Your task to perform on an android device: uninstall "Calculator" Image 0: 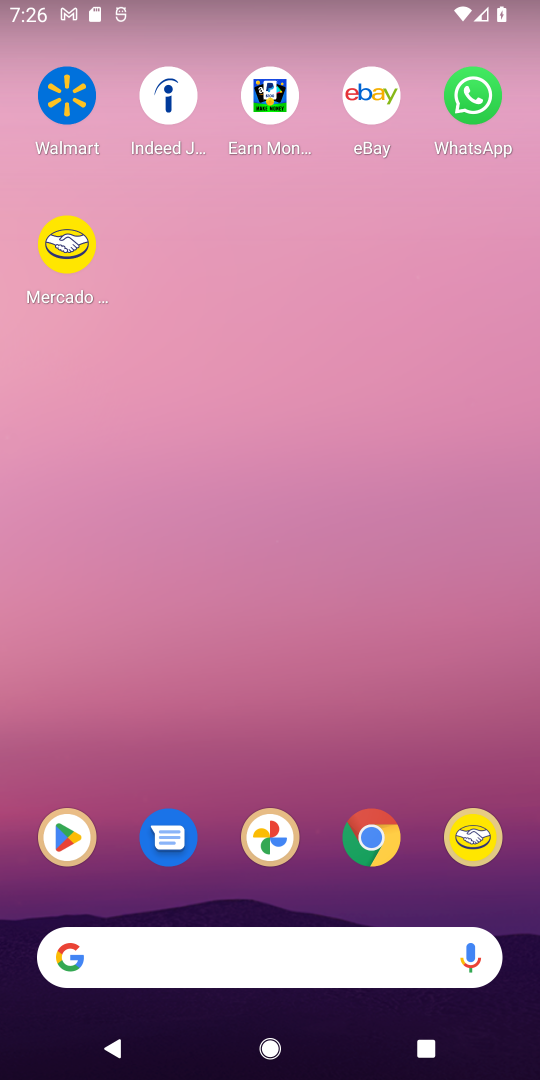
Step 0: click (70, 830)
Your task to perform on an android device: uninstall "Calculator" Image 1: 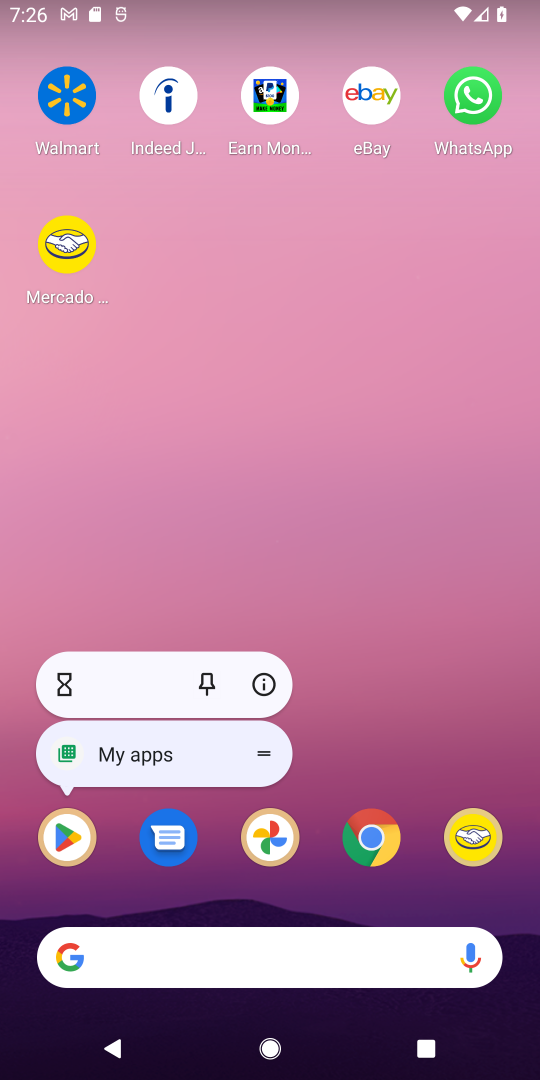
Step 1: click (273, 687)
Your task to perform on an android device: uninstall "Calculator" Image 2: 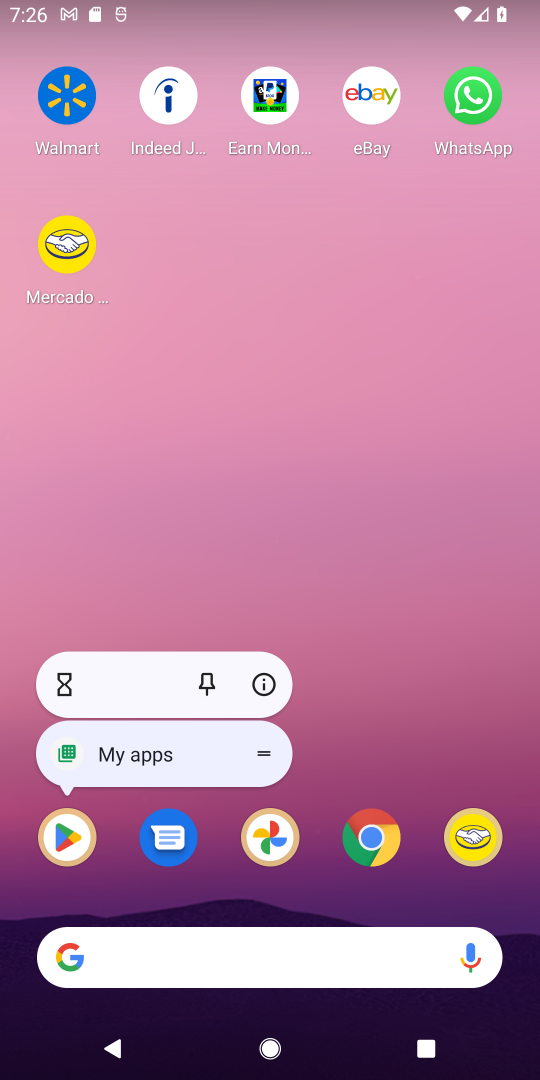
Step 2: click (264, 670)
Your task to perform on an android device: uninstall "Calculator" Image 3: 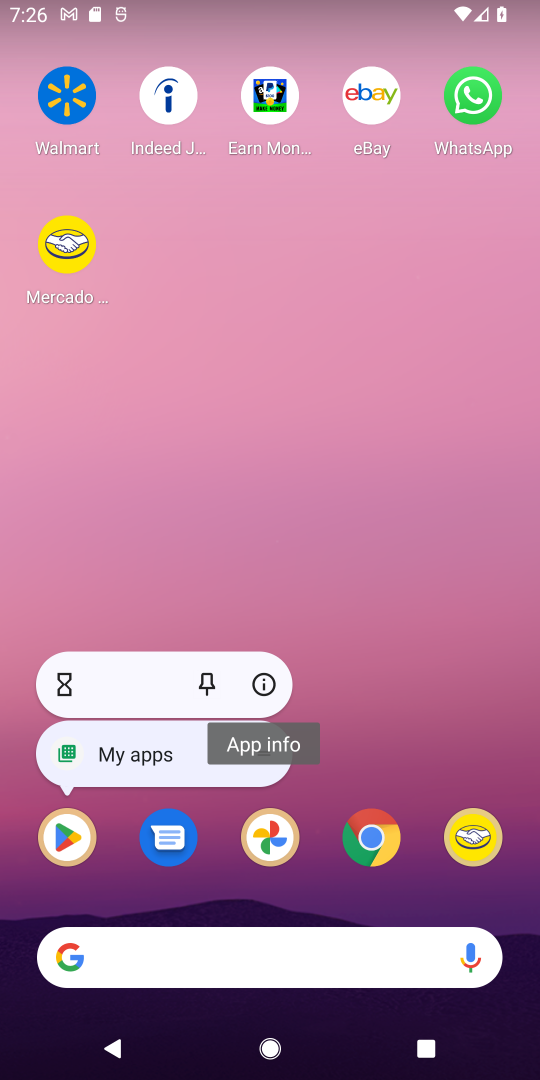
Step 3: click (272, 673)
Your task to perform on an android device: uninstall "Calculator" Image 4: 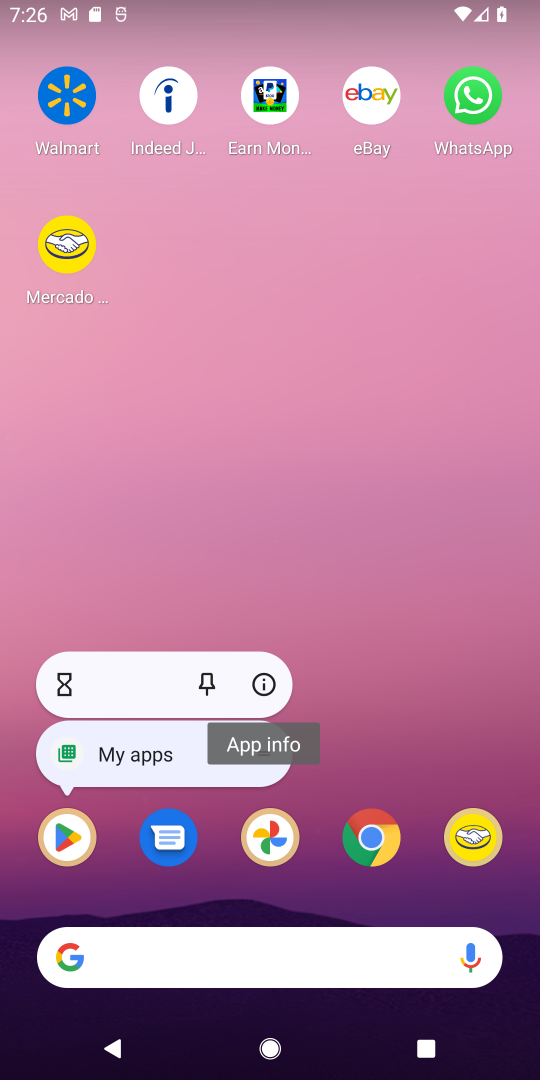
Step 4: click (270, 674)
Your task to perform on an android device: uninstall "Calculator" Image 5: 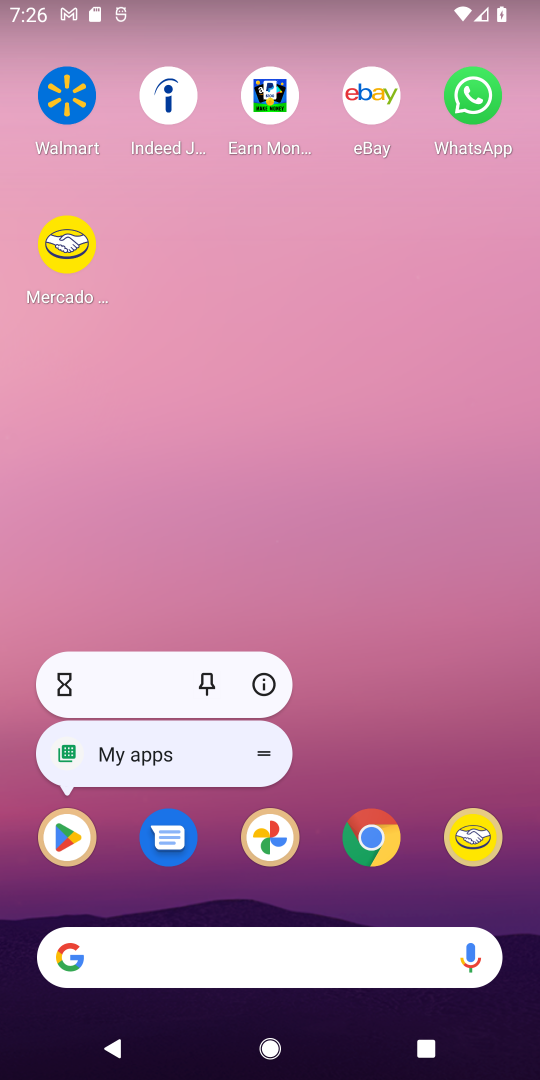
Step 5: click (268, 694)
Your task to perform on an android device: uninstall "Calculator" Image 6: 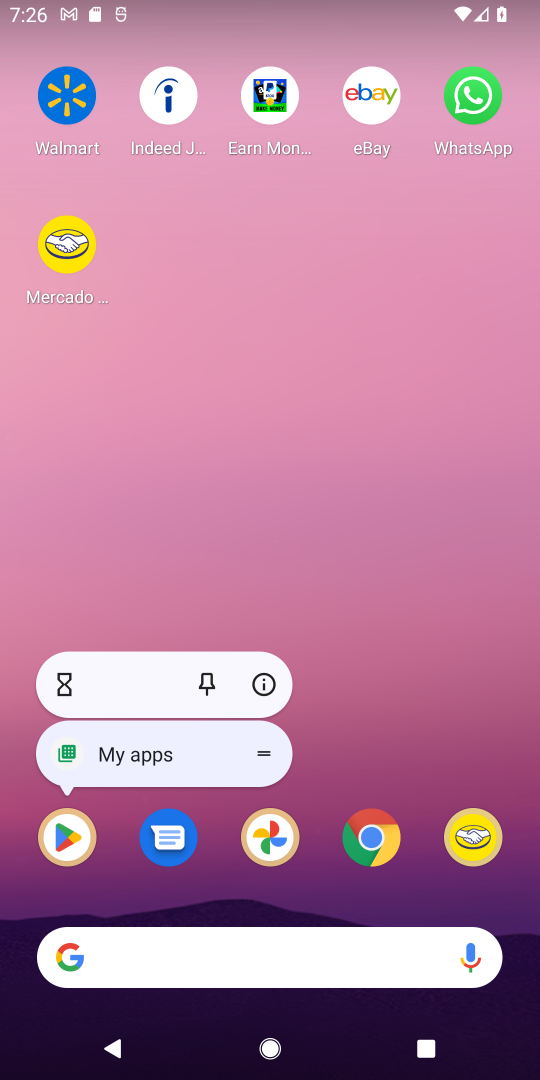
Step 6: click (262, 675)
Your task to perform on an android device: uninstall "Calculator" Image 7: 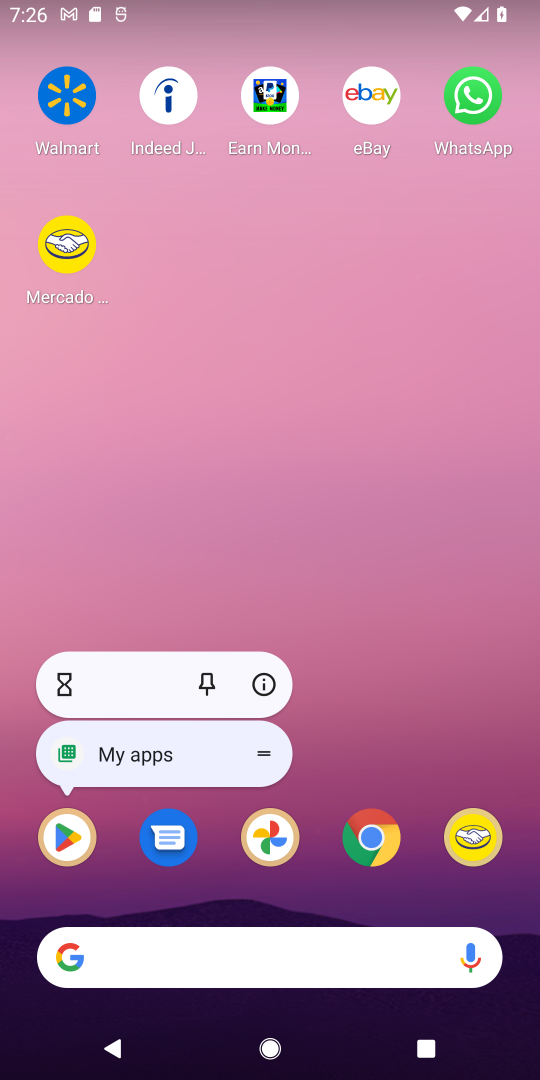
Step 7: click (249, 675)
Your task to perform on an android device: uninstall "Calculator" Image 8: 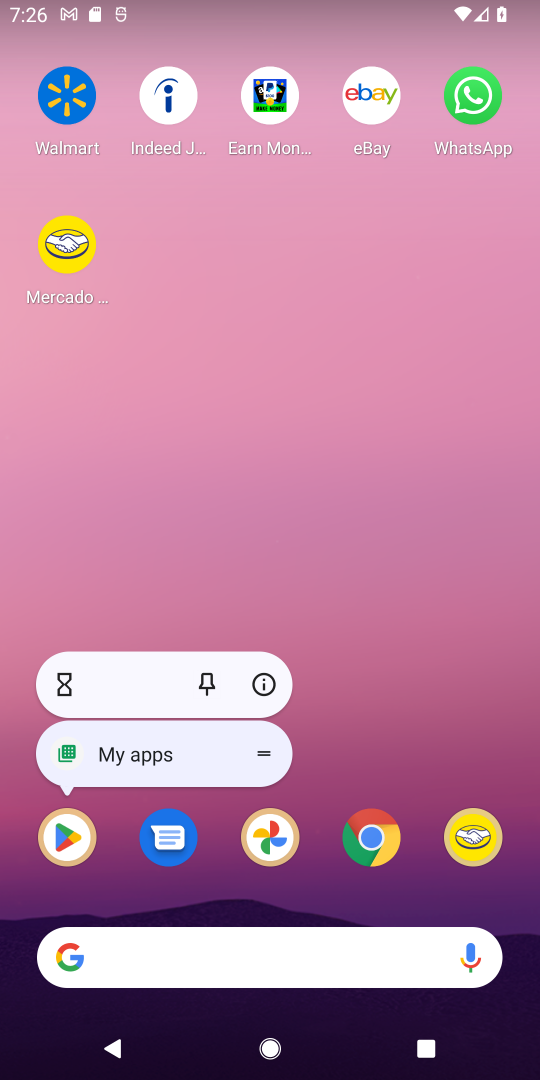
Step 8: click (267, 694)
Your task to perform on an android device: uninstall "Calculator" Image 9: 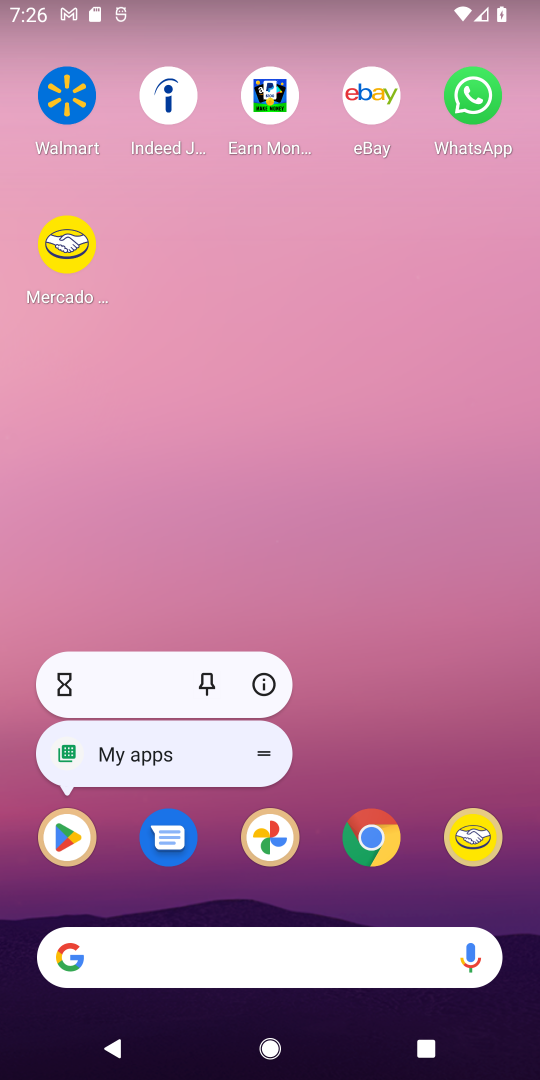
Step 9: click (277, 679)
Your task to perform on an android device: uninstall "Calculator" Image 10: 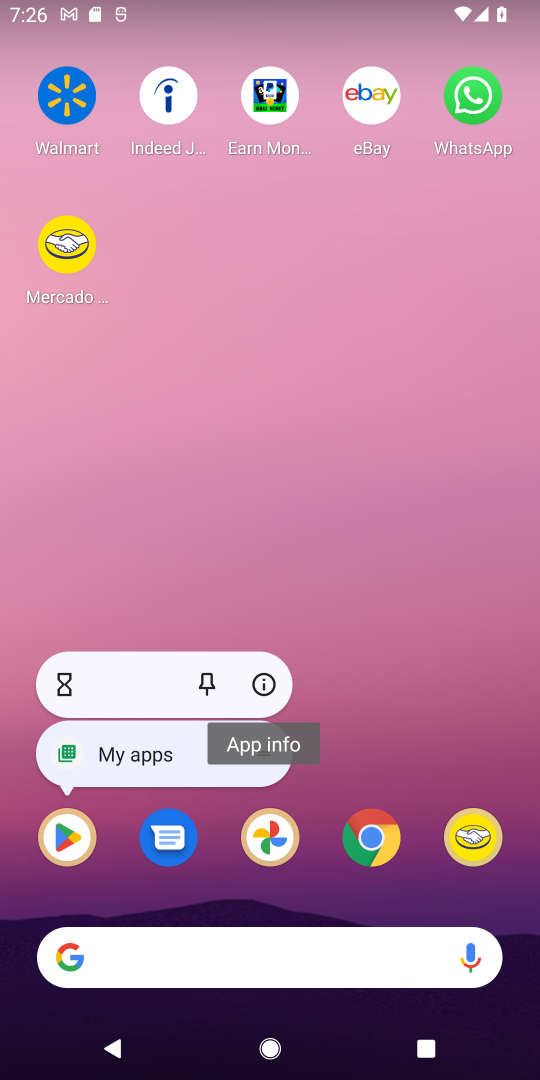
Step 10: click (272, 680)
Your task to perform on an android device: uninstall "Calculator" Image 11: 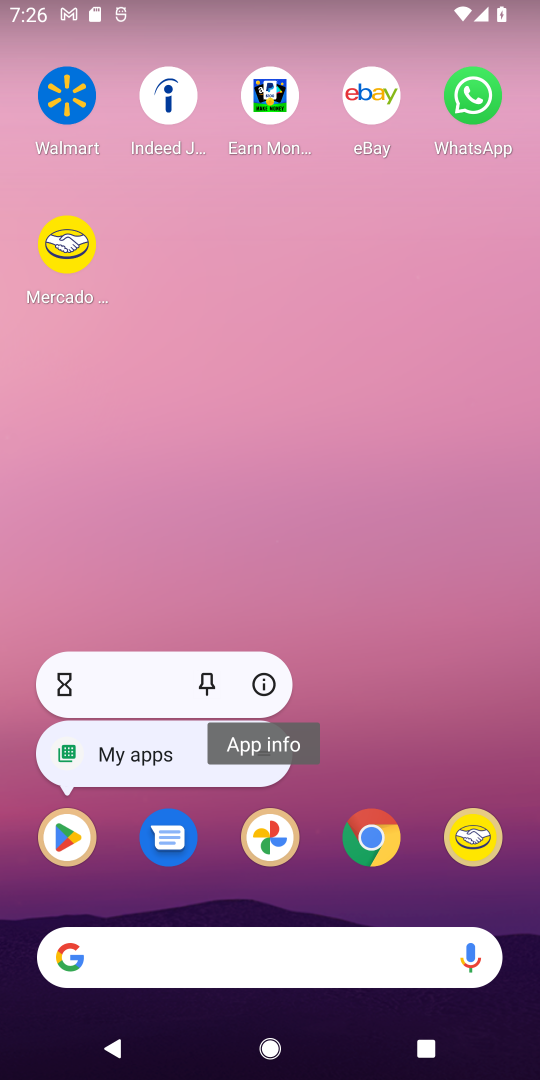
Step 11: click (274, 684)
Your task to perform on an android device: uninstall "Calculator" Image 12: 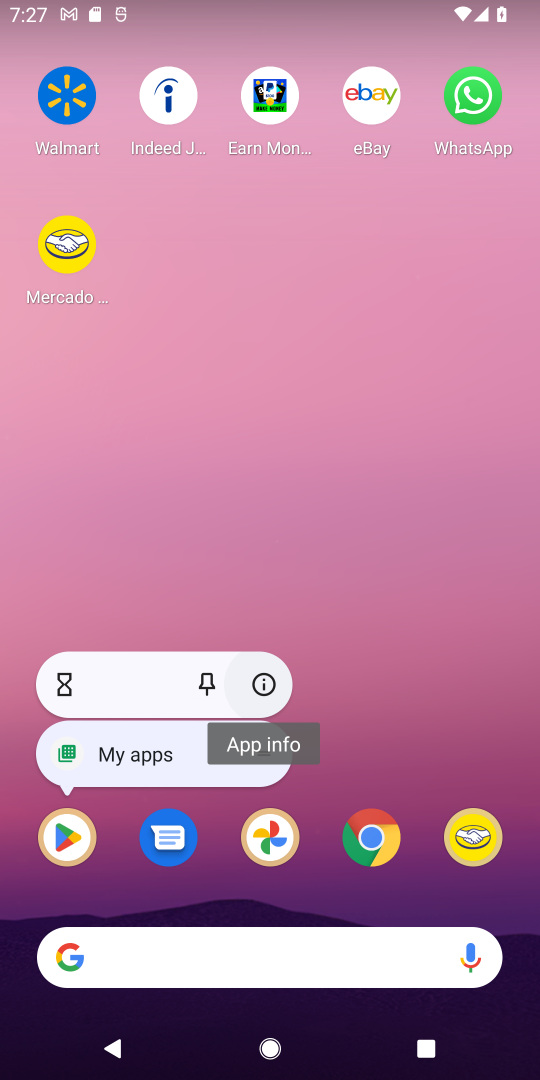
Step 12: click (277, 687)
Your task to perform on an android device: uninstall "Calculator" Image 13: 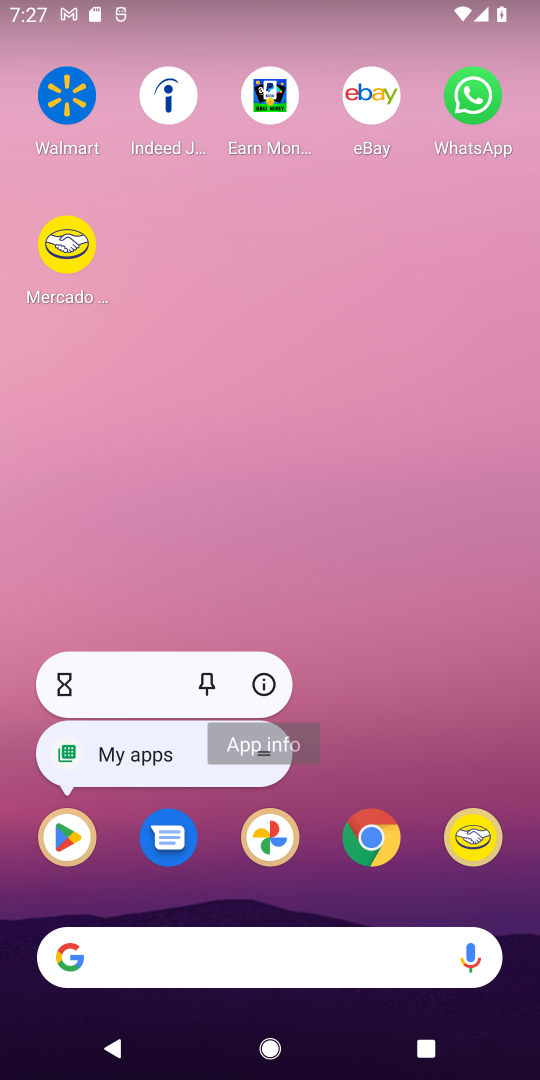
Step 13: click (277, 687)
Your task to perform on an android device: uninstall "Calculator" Image 14: 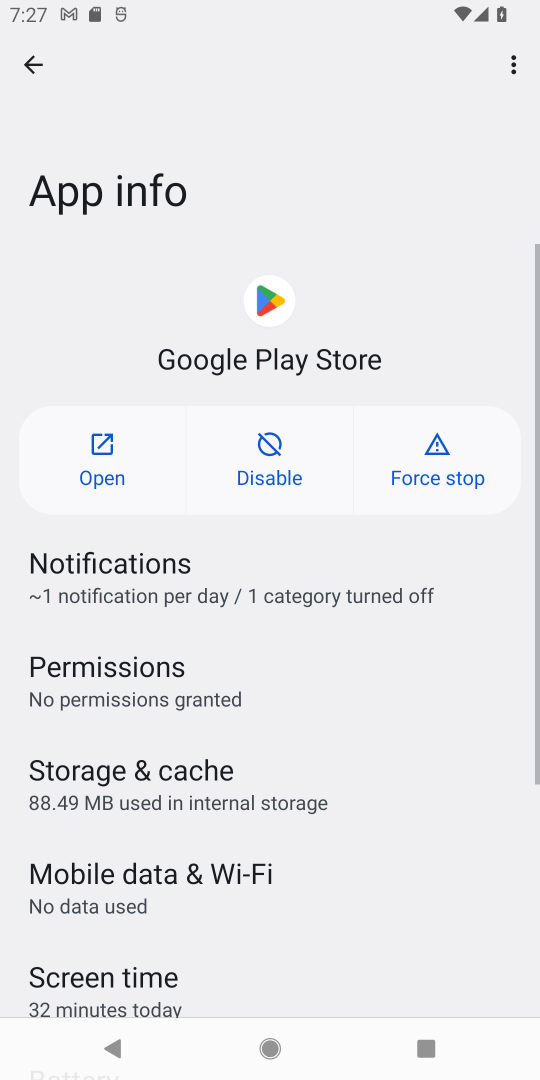
Step 14: click (119, 467)
Your task to perform on an android device: uninstall "Calculator" Image 15: 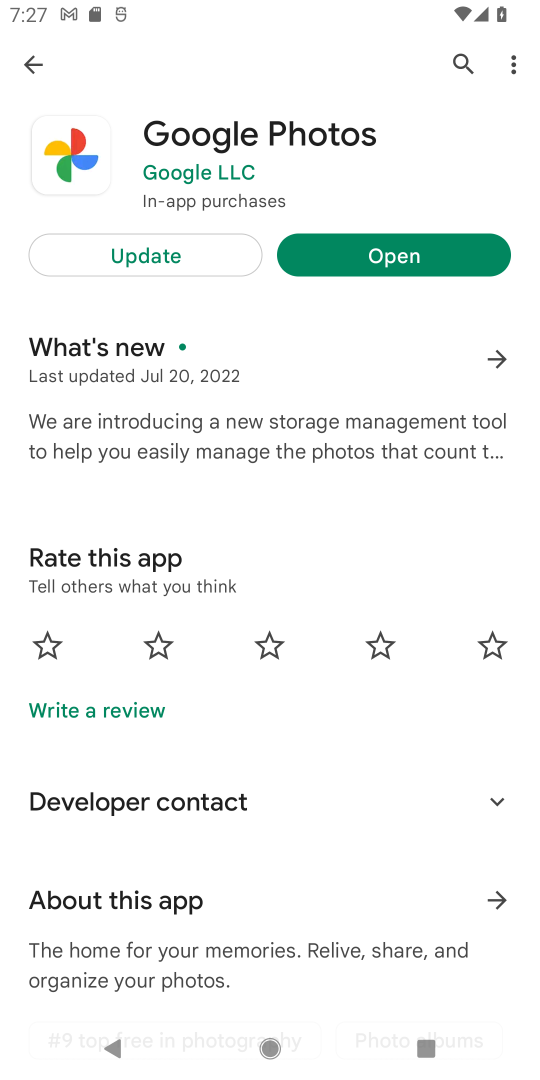
Step 15: click (30, 63)
Your task to perform on an android device: uninstall "Calculator" Image 16: 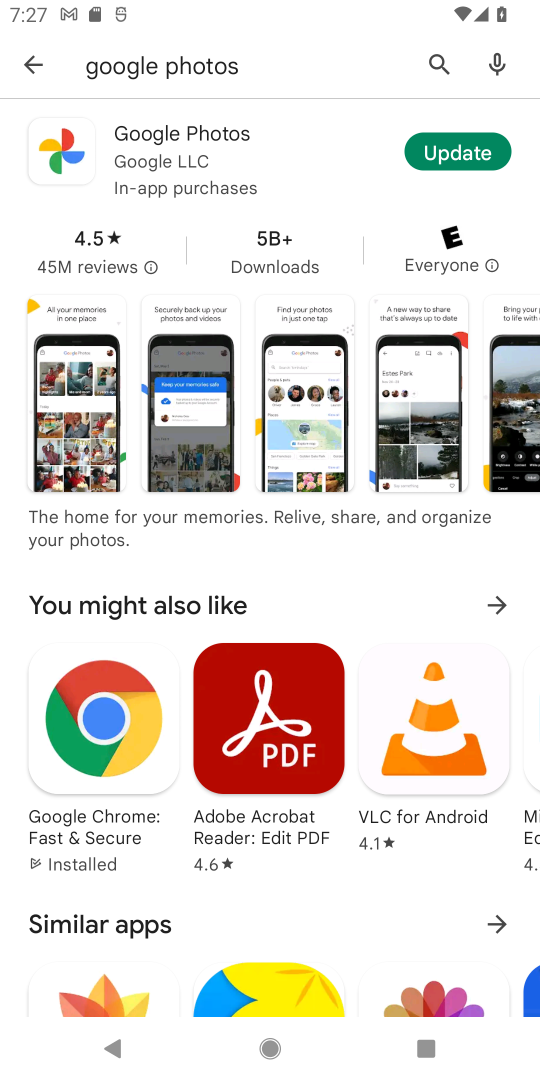
Step 16: drag from (274, 303) to (435, 1076)
Your task to perform on an android device: uninstall "Calculator" Image 17: 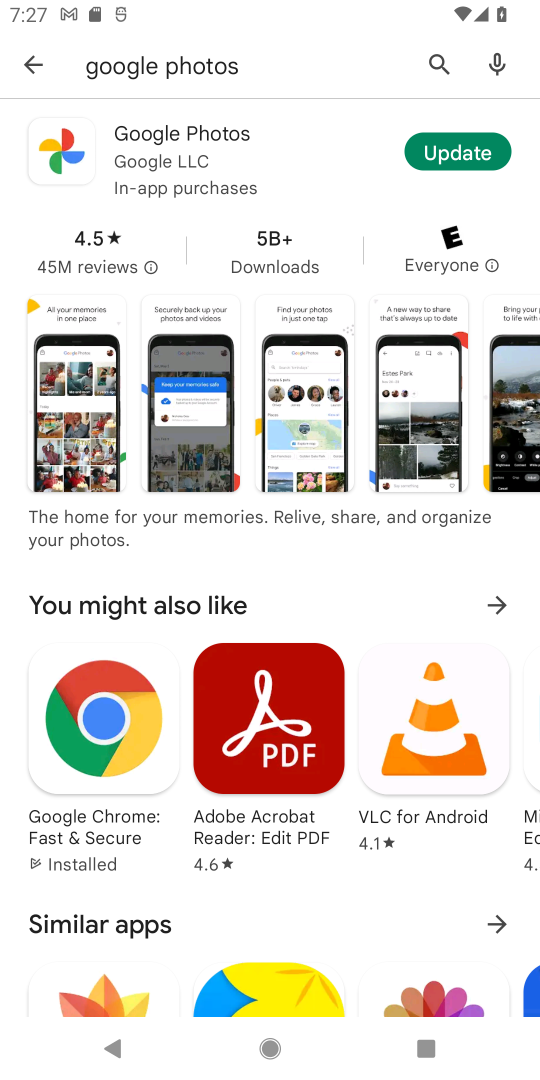
Step 17: drag from (189, 909) to (277, 326)
Your task to perform on an android device: uninstall "Calculator" Image 18: 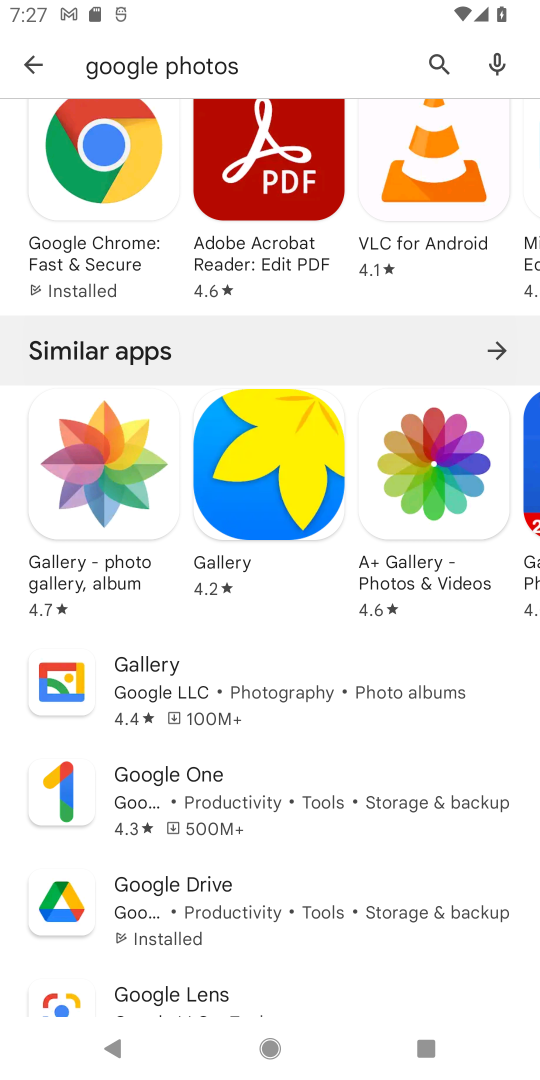
Step 18: drag from (292, 75) to (346, 895)
Your task to perform on an android device: uninstall "Calculator" Image 19: 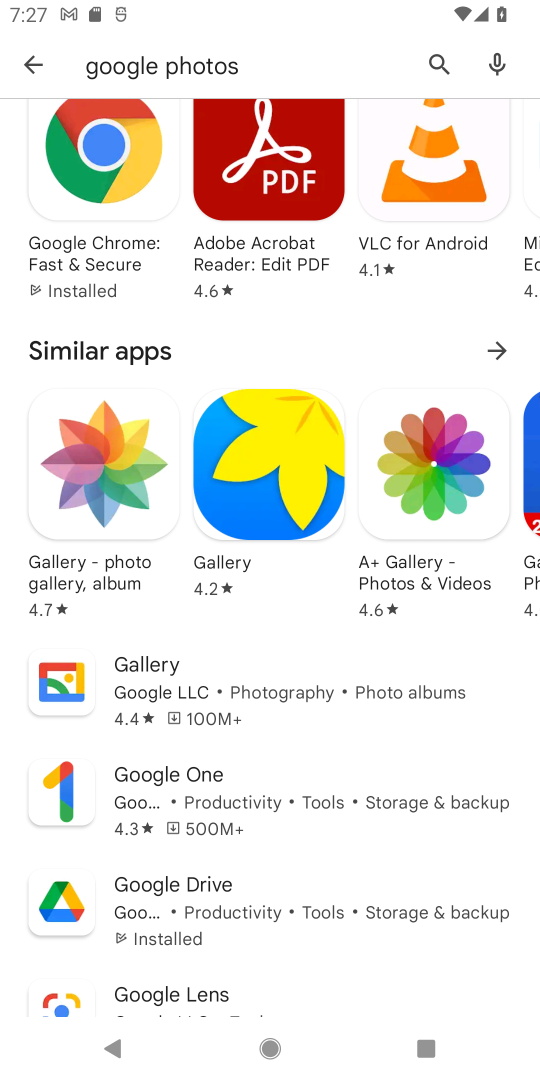
Step 19: click (440, 61)
Your task to perform on an android device: uninstall "Calculator" Image 20: 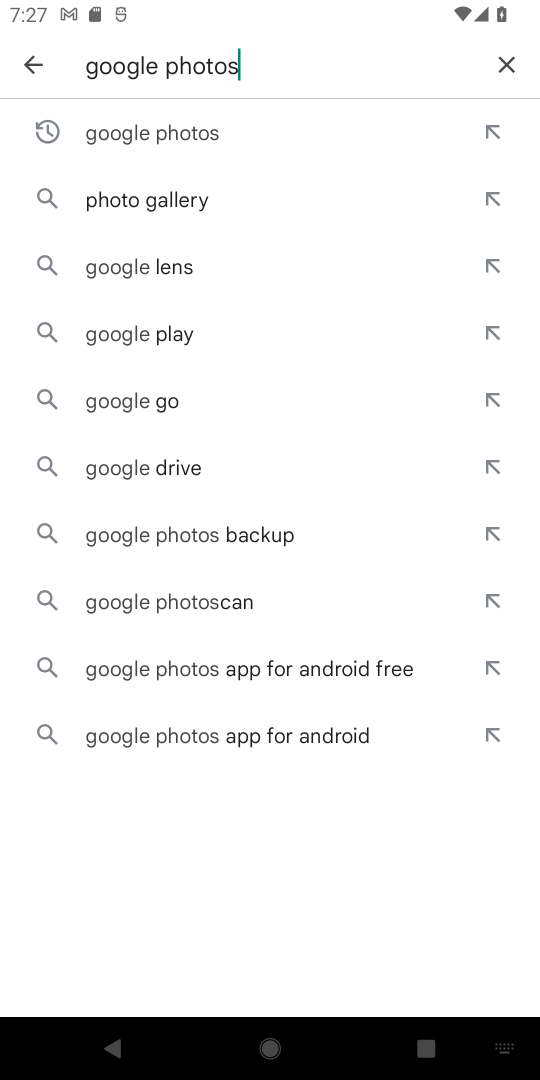
Step 20: click (509, 73)
Your task to perform on an android device: uninstall "Calculator" Image 21: 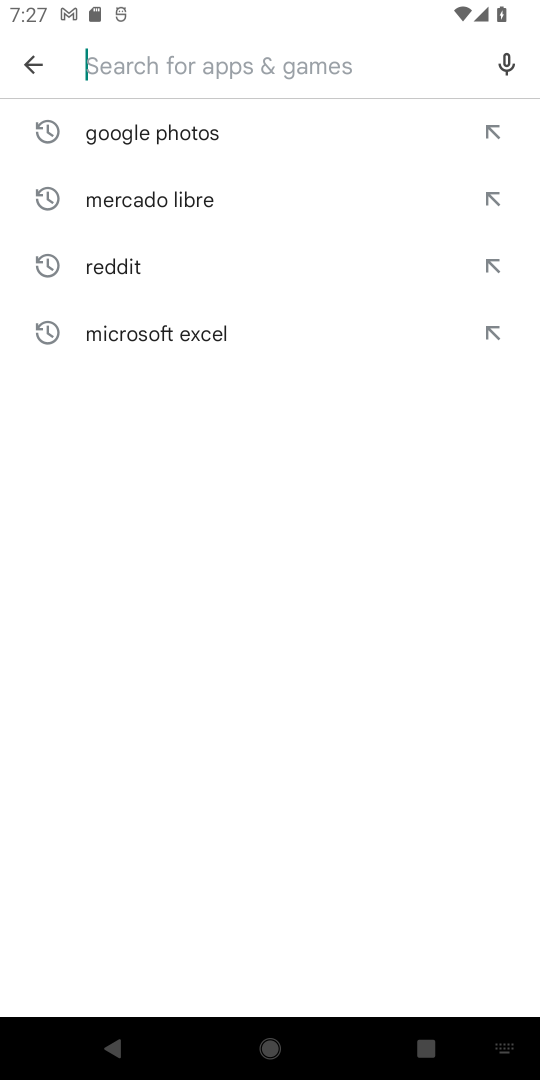
Step 21: click (206, 75)
Your task to perform on an android device: uninstall "Calculator" Image 22: 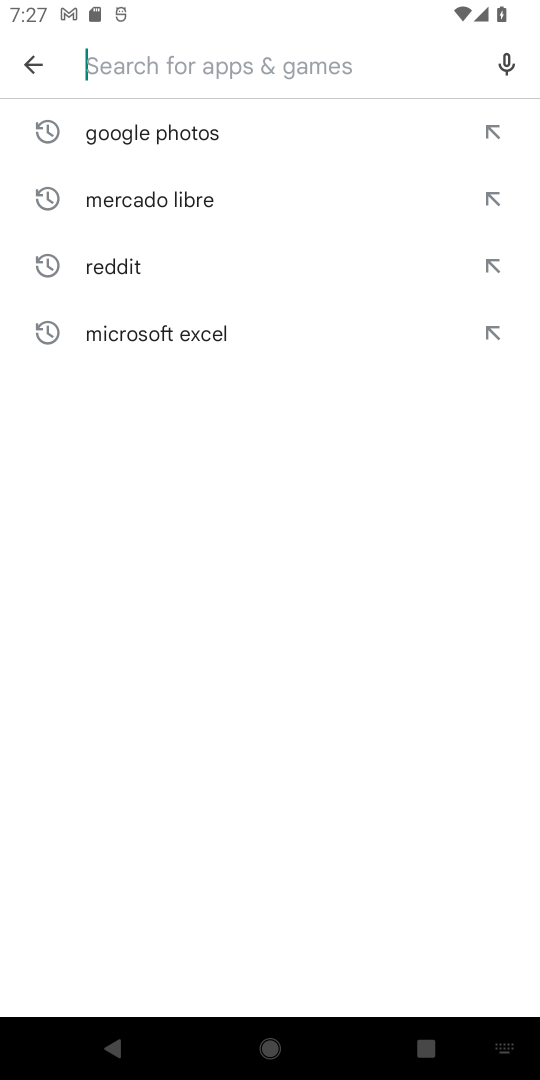
Step 22: type "Calculator"
Your task to perform on an android device: uninstall "Calculator" Image 23: 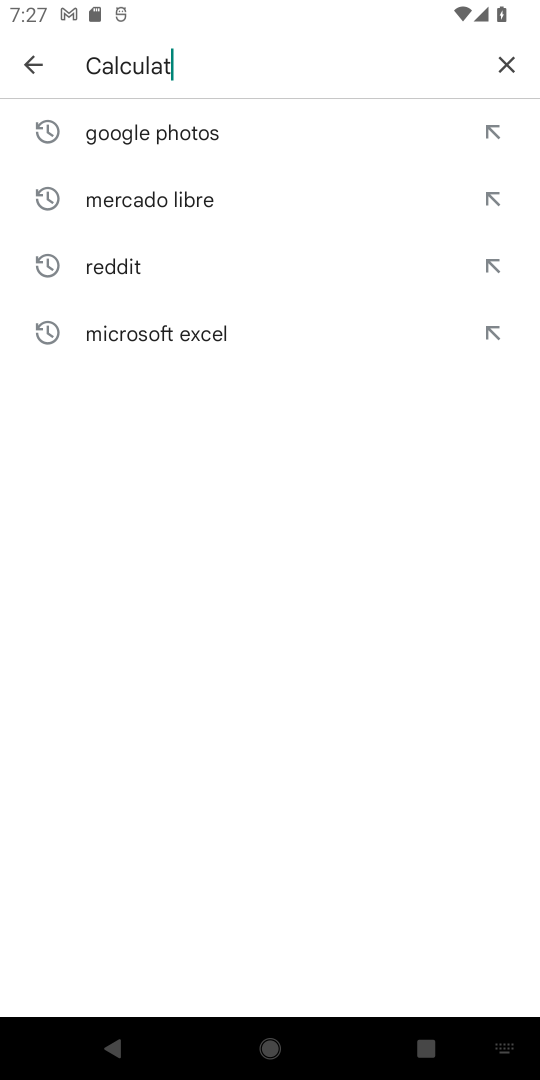
Step 23: type ""
Your task to perform on an android device: uninstall "Calculator" Image 24: 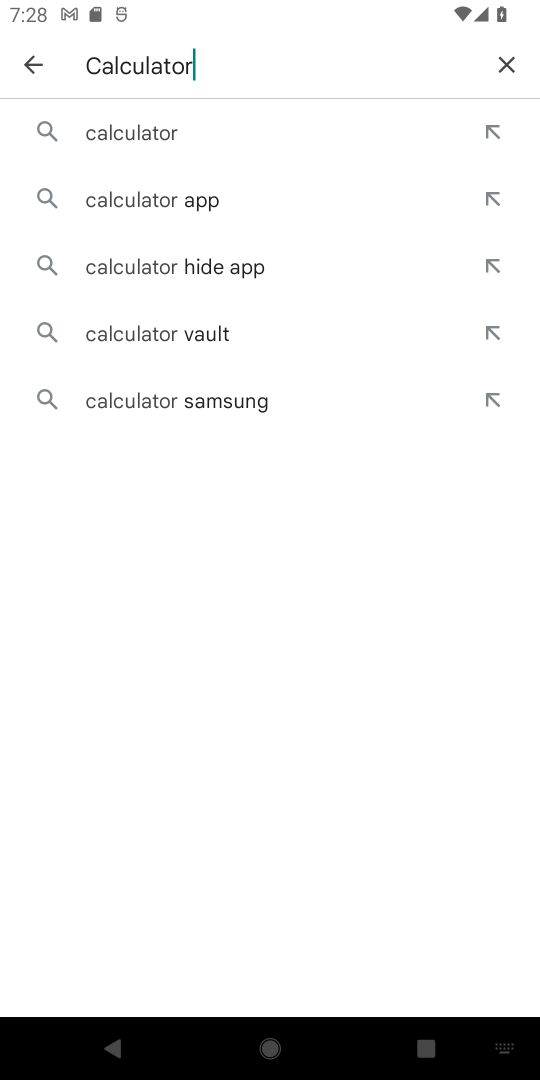
Step 24: click (144, 128)
Your task to perform on an android device: uninstall "Calculator" Image 25: 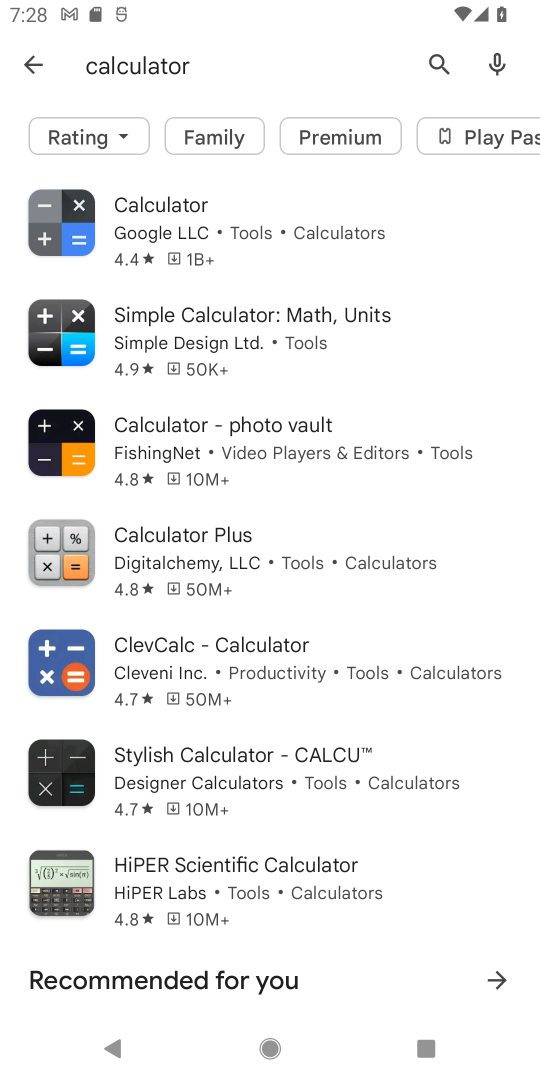
Step 25: click (230, 206)
Your task to perform on an android device: uninstall "Calculator" Image 26: 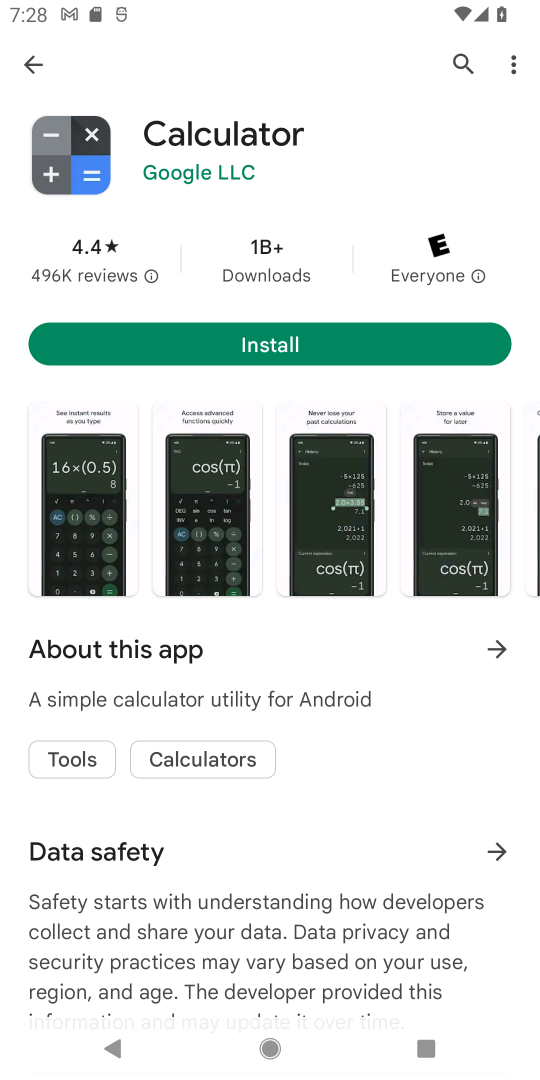
Step 26: task complete